Your task to perform on an android device: change text size in settings app Image 0: 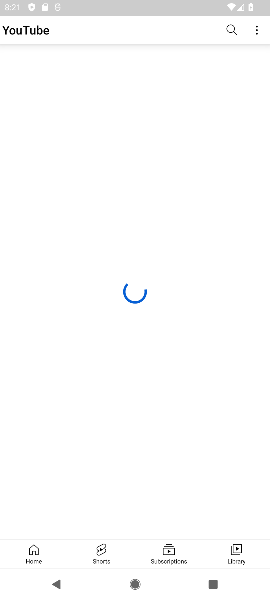
Step 0: press home button
Your task to perform on an android device: change text size in settings app Image 1: 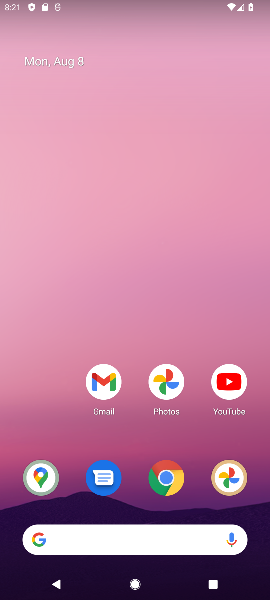
Step 1: drag from (143, 542) to (199, 137)
Your task to perform on an android device: change text size in settings app Image 2: 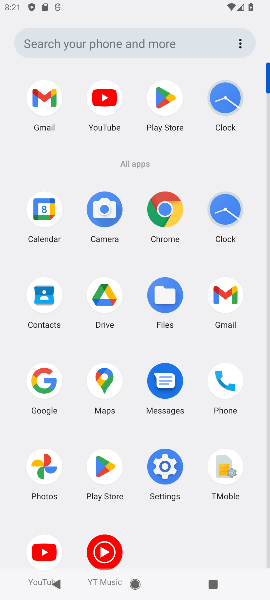
Step 2: click (169, 460)
Your task to perform on an android device: change text size in settings app Image 3: 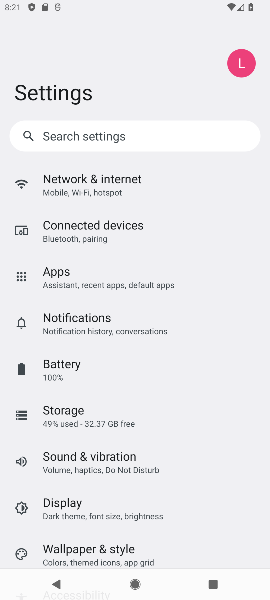
Step 3: click (102, 511)
Your task to perform on an android device: change text size in settings app Image 4: 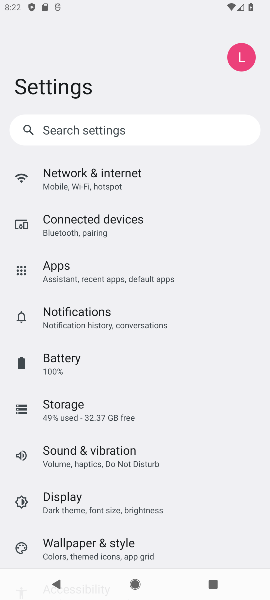
Step 4: click (82, 509)
Your task to perform on an android device: change text size in settings app Image 5: 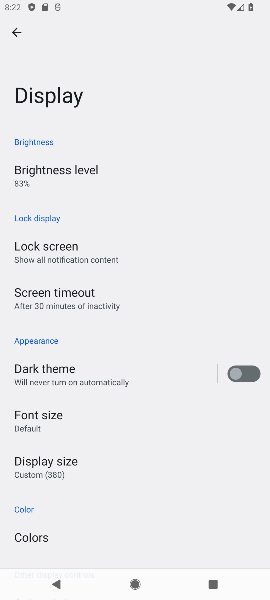
Step 5: click (47, 419)
Your task to perform on an android device: change text size in settings app Image 6: 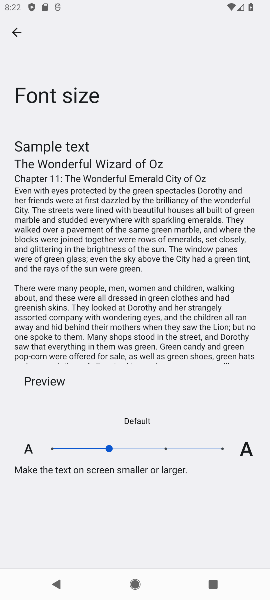
Step 6: click (165, 444)
Your task to perform on an android device: change text size in settings app Image 7: 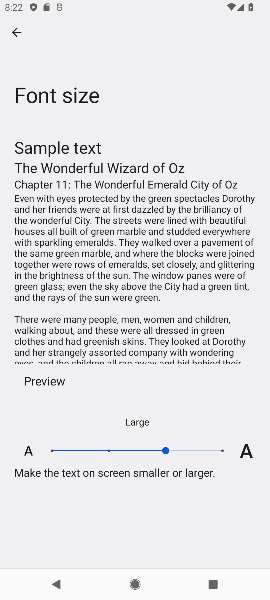
Step 7: task complete